Your task to perform on an android device: check google app version Image 0: 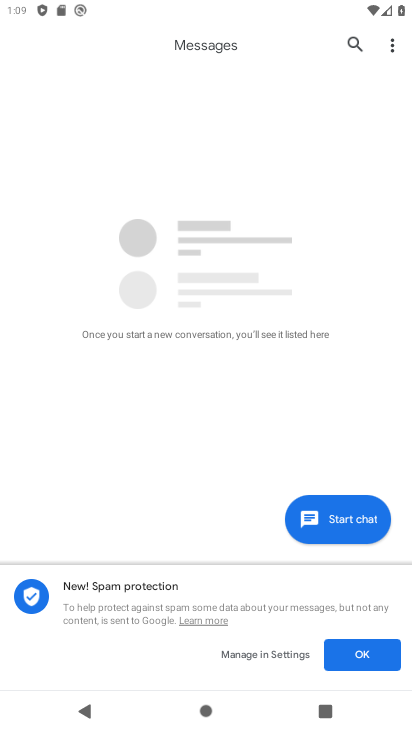
Step 0: press home button
Your task to perform on an android device: check google app version Image 1: 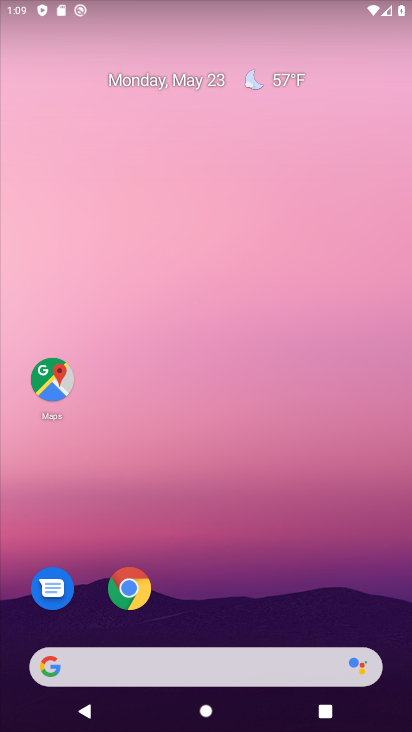
Step 1: drag from (250, 615) to (185, 141)
Your task to perform on an android device: check google app version Image 2: 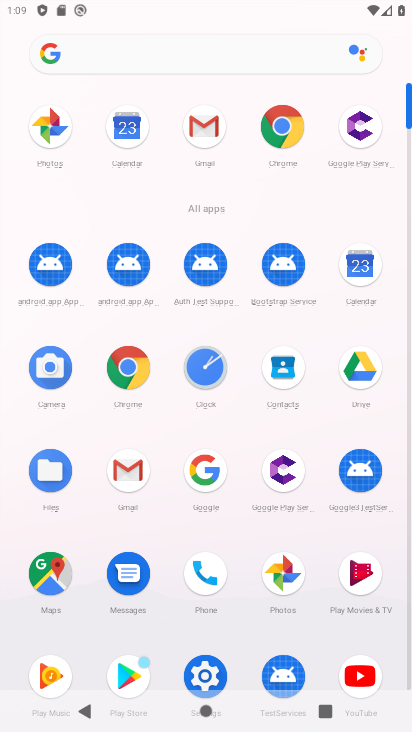
Step 2: click (284, 139)
Your task to perform on an android device: check google app version Image 3: 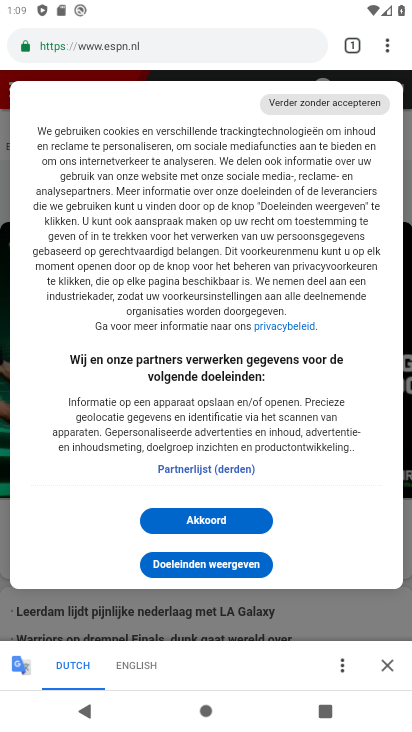
Step 3: click (381, 57)
Your task to perform on an android device: check google app version Image 4: 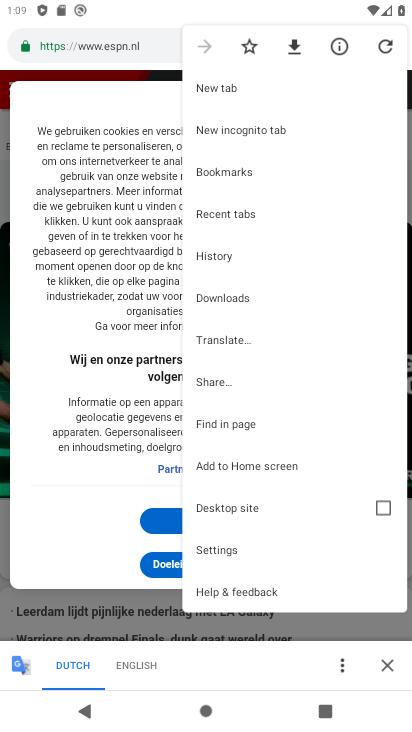
Step 4: click (265, 594)
Your task to perform on an android device: check google app version Image 5: 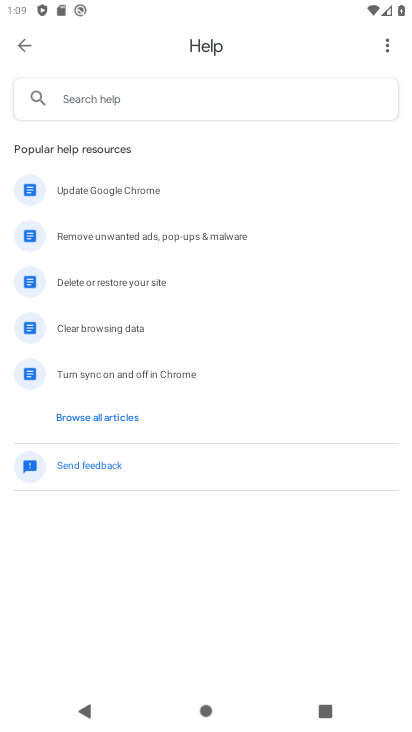
Step 5: click (384, 48)
Your task to perform on an android device: check google app version Image 6: 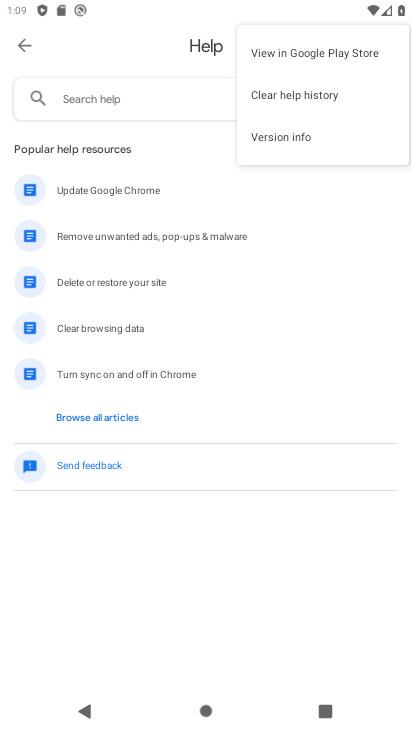
Step 6: click (337, 144)
Your task to perform on an android device: check google app version Image 7: 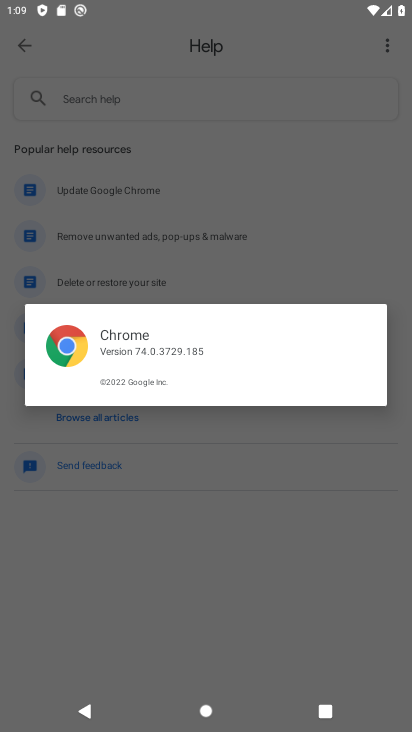
Step 7: task complete